Your task to perform on an android device: Open Chrome and go to settings Image 0: 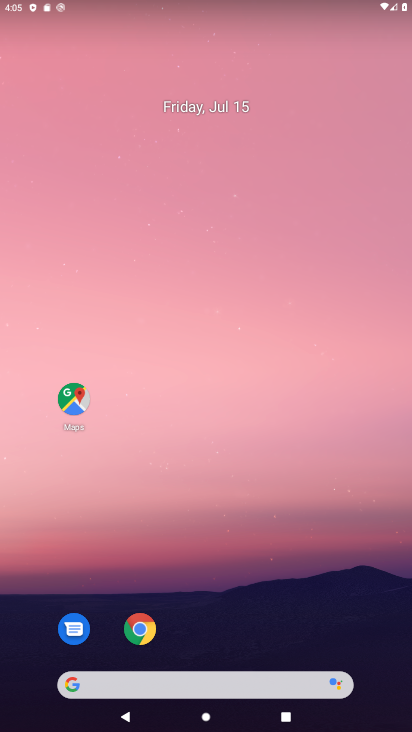
Step 0: click (147, 627)
Your task to perform on an android device: Open Chrome and go to settings Image 1: 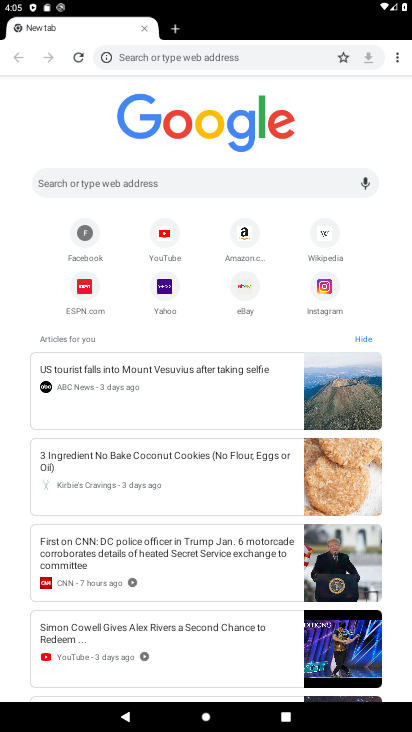
Step 1: click (147, 627)
Your task to perform on an android device: Open Chrome and go to settings Image 2: 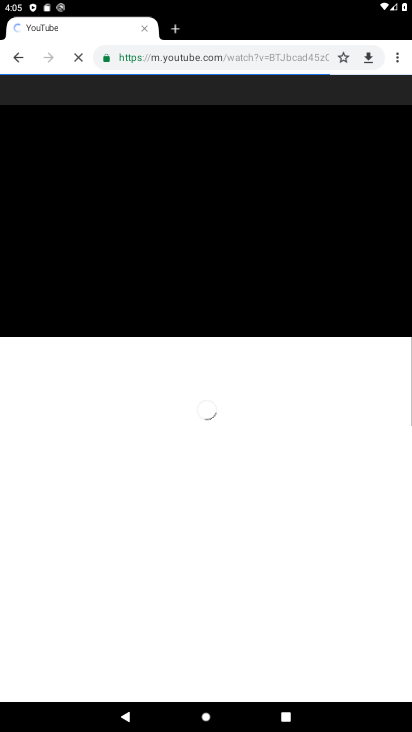
Step 2: click (395, 54)
Your task to perform on an android device: Open Chrome and go to settings Image 3: 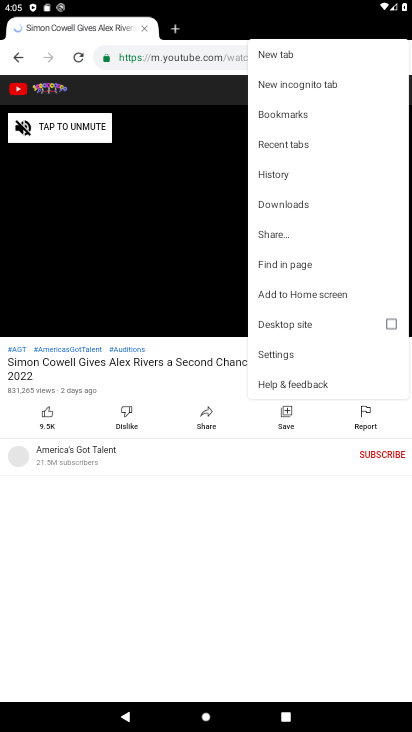
Step 3: click (288, 351)
Your task to perform on an android device: Open Chrome and go to settings Image 4: 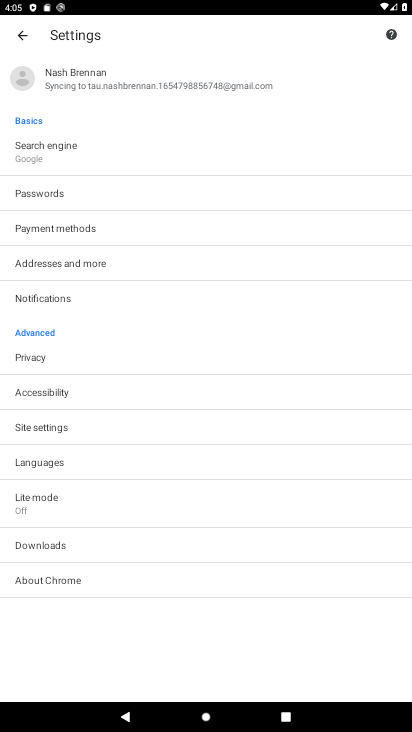
Step 4: task complete